Your task to perform on an android device: turn on priority inbox in the gmail app Image 0: 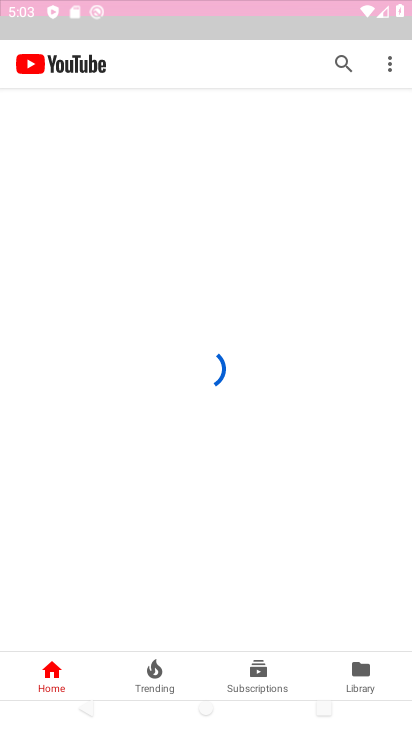
Step 0: click (119, 575)
Your task to perform on an android device: turn on priority inbox in the gmail app Image 1: 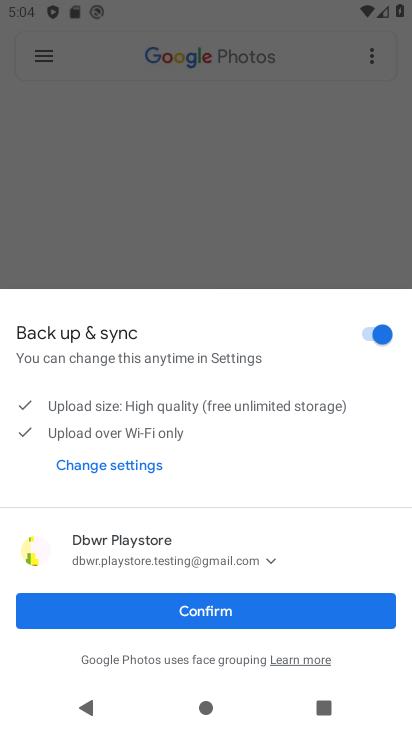
Step 1: press home button
Your task to perform on an android device: turn on priority inbox in the gmail app Image 2: 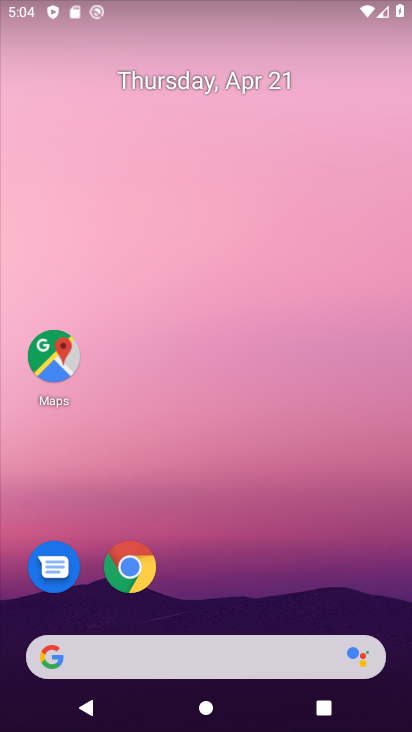
Step 2: drag from (203, 586) to (303, 9)
Your task to perform on an android device: turn on priority inbox in the gmail app Image 3: 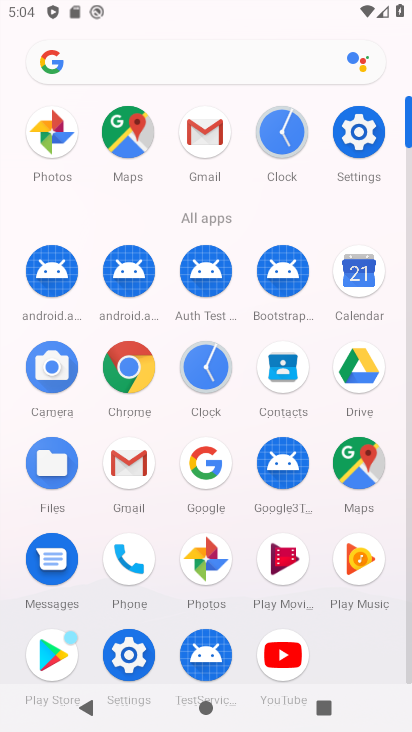
Step 3: click (124, 464)
Your task to perform on an android device: turn on priority inbox in the gmail app Image 4: 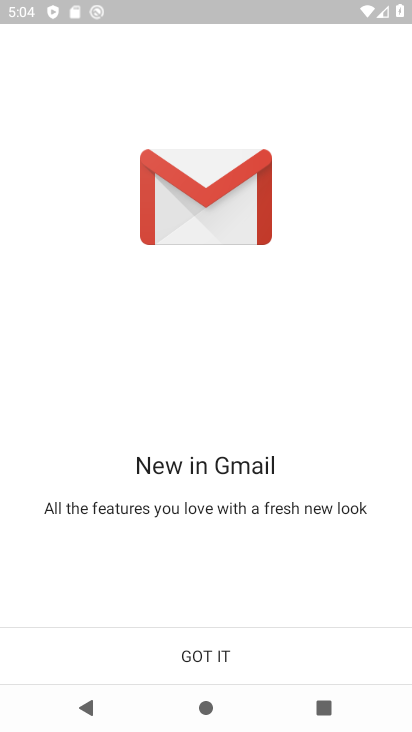
Step 4: click (209, 650)
Your task to perform on an android device: turn on priority inbox in the gmail app Image 5: 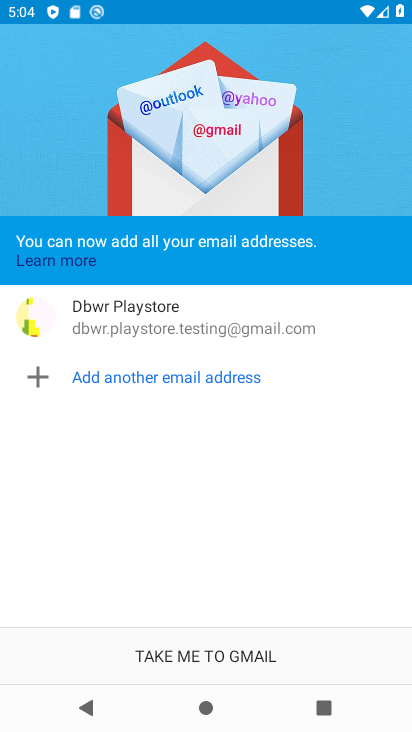
Step 5: click (209, 651)
Your task to perform on an android device: turn on priority inbox in the gmail app Image 6: 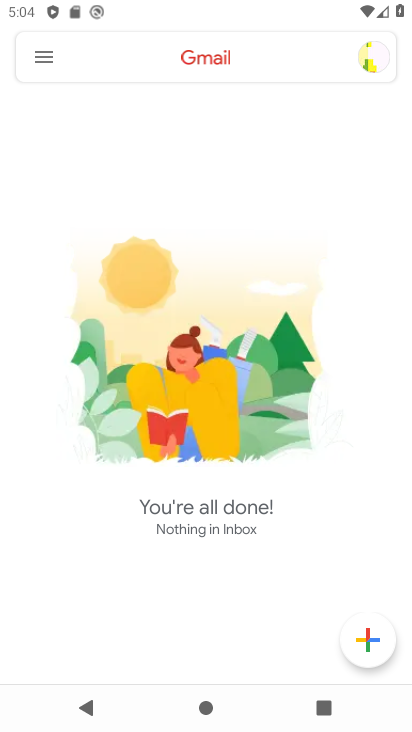
Step 6: click (42, 60)
Your task to perform on an android device: turn on priority inbox in the gmail app Image 7: 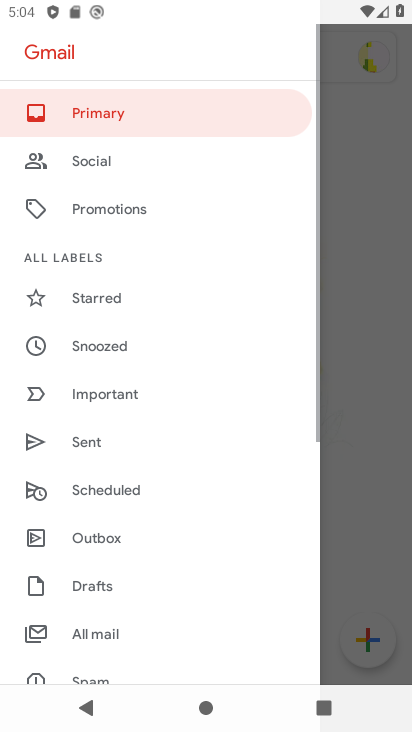
Step 7: drag from (87, 622) to (111, 175)
Your task to perform on an android device: turn on priority inbox in the gmail app Image 8: 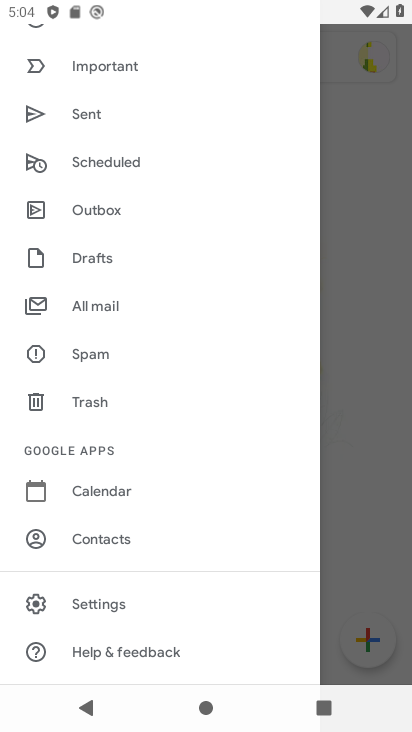
Step 8: click (67, 602)
Your task to perform on an android device: turn on priority inbox in the gmail app Image 9: 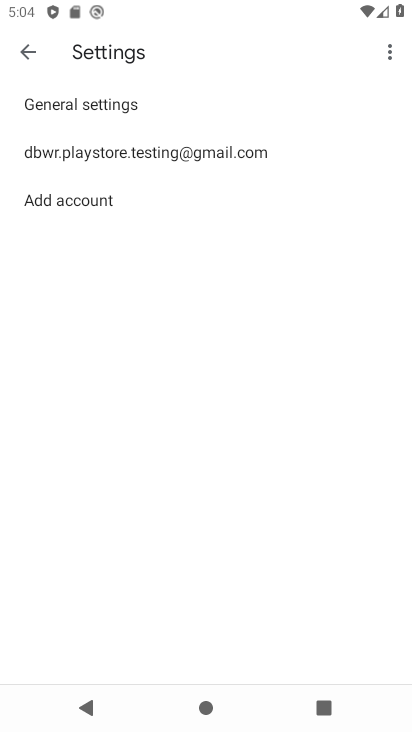
Step 9: click (87, 159)
Your task to perform on an android device: turn on priority inbox in the gmail app Image 10: 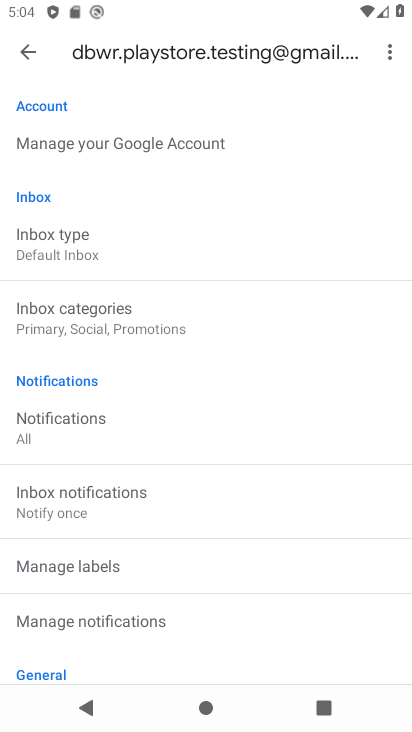
Step 10: click (90, 249)
Your task to perform on an android device: turn on priority inbox in the gmail app Image 11: 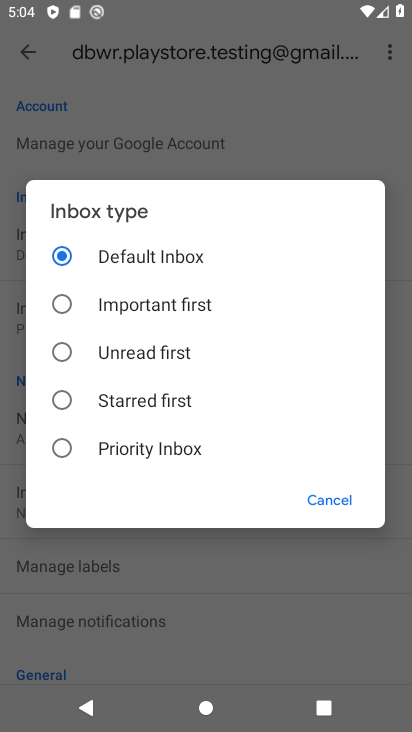
Step 11: click (63, 447)
Your task to perform on an android device: turn on priority inbox in the gmail app Image 12: 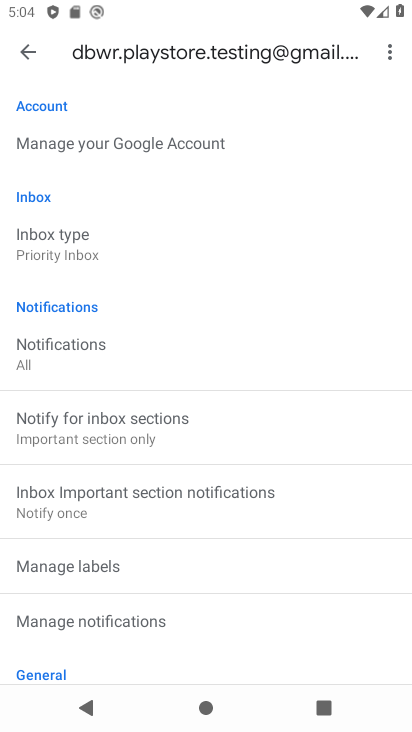
Step 12: task complete